Your task to perform on an android device: delete the emails in spam in the gmail app Image 0: 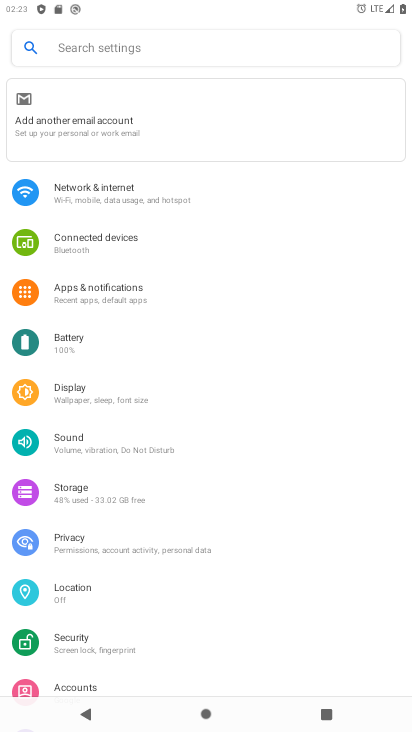
Step 0: press home button
Your task to perform on an android device: delete the emails in spam in the gmail app Image 1: 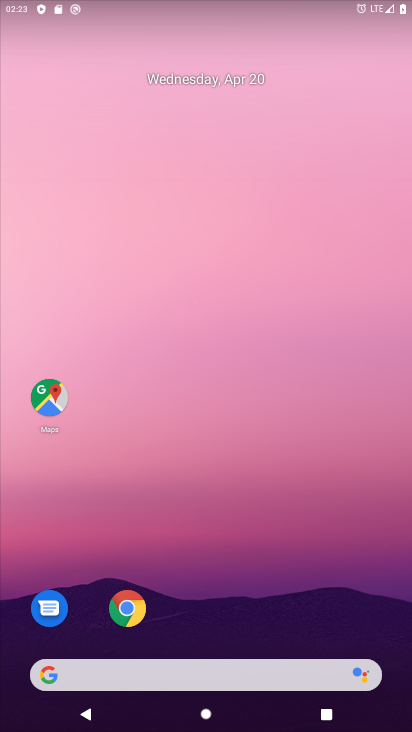
Step 1: drag from (355, 597) to (381, 143)
Your task to perform on an android device: delete the emails in spam in the gmail app Image 2: 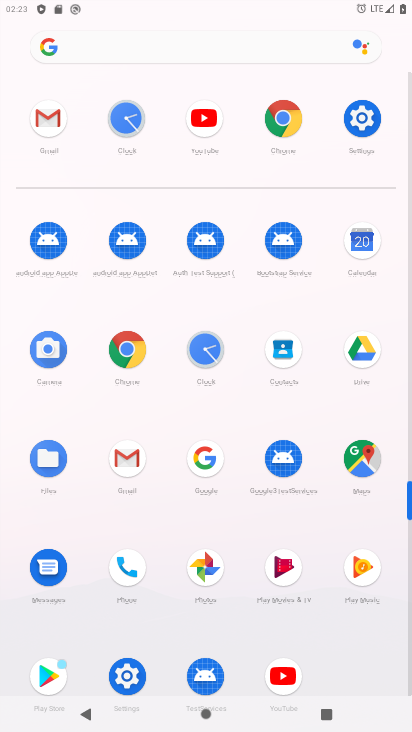
Step 2: click (145, 465)
Your task to perform on an android device: delete the emails in spam in the gmail app Image 3: 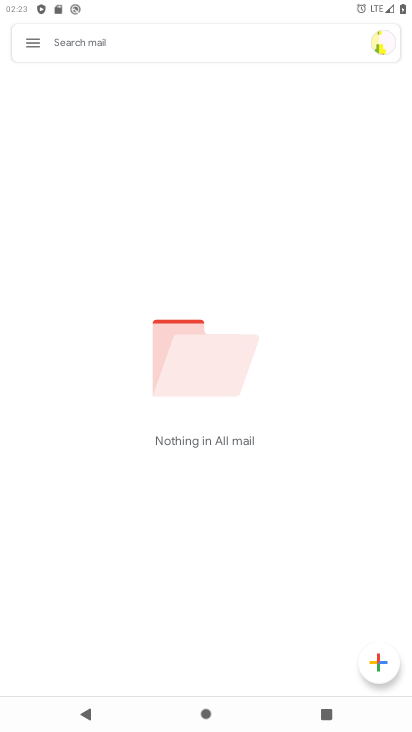
Step 3: click (34, 50)
Your task to perform on an android device: delete the emails in spam in the gmail app Image 4: 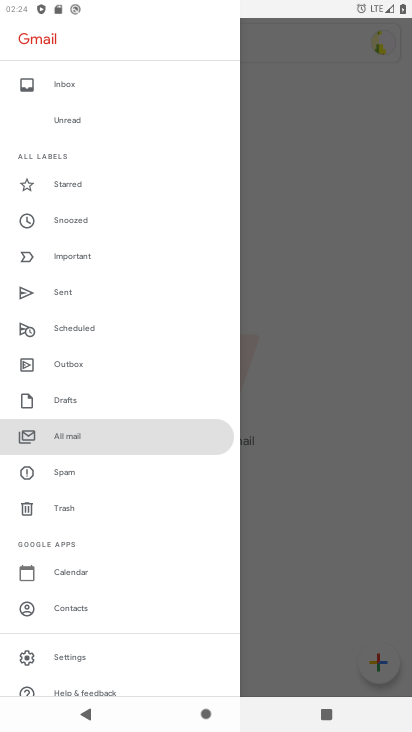
Step 4: click (94, 466)
Your task to perform on an android device: delete the emails in spam in the gmail app Image 5: 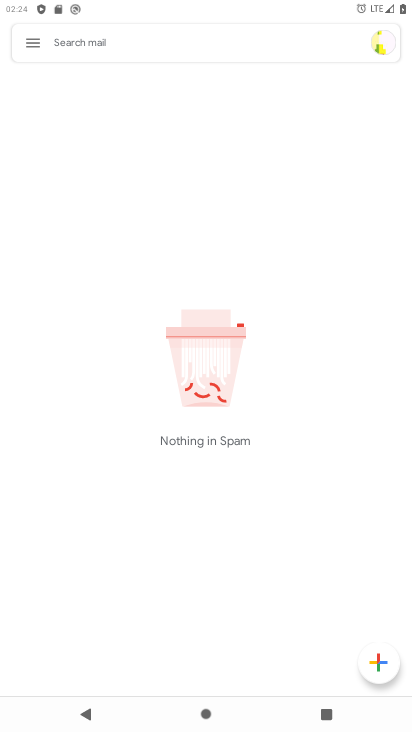
Step 5: task complete